Your task to perform on an android device: turn off smart reply in the gmail app Image 0: 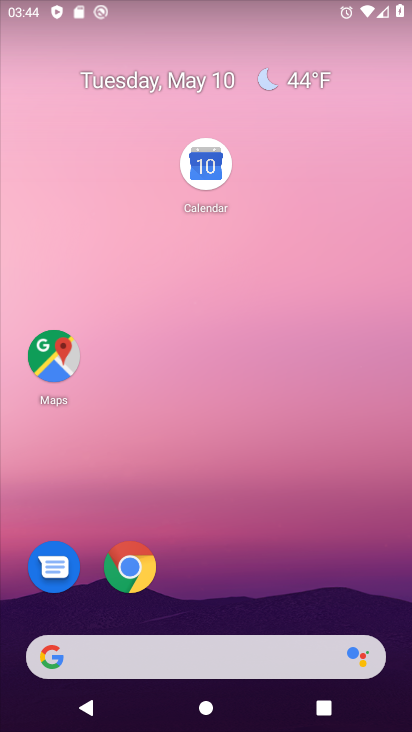
Step 0: drag from (222, 574) to (272, 106)
Your task to perform on an android device: turn off smart reply in the gmail app Image 1: 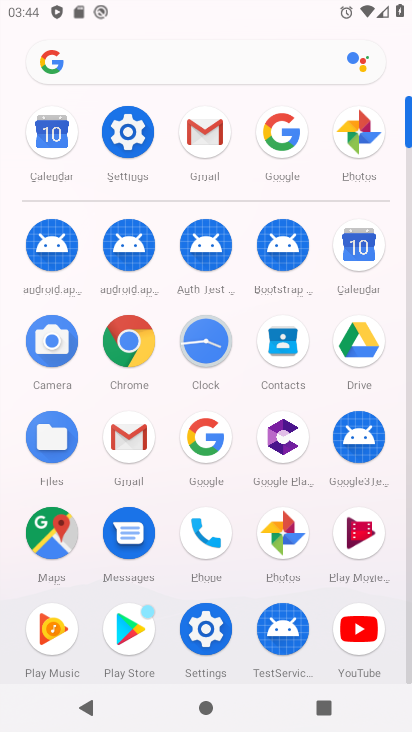
Step 1: click (200, 127)
Your task to perform on an android device: turn off smart reply in the gmail app Image 2: 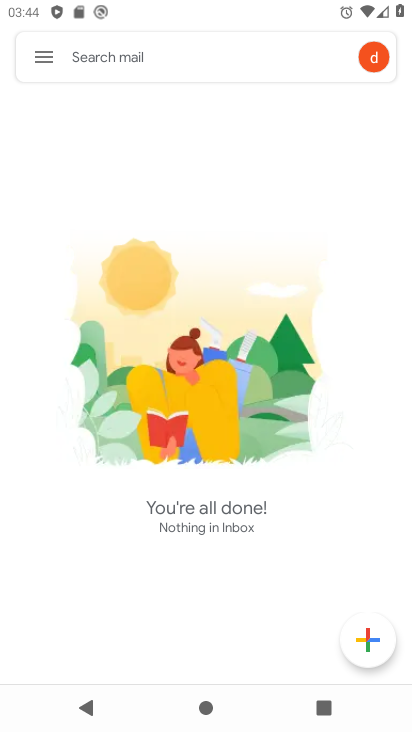
Step 2: click (45, 54)
Your task to perform on an android device: turn off smart reply in the gmail app Image 3: 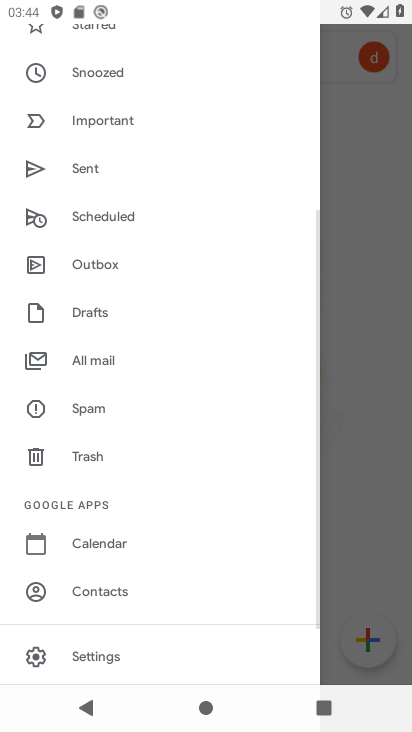
Step 3: click (106, 651)
Your task to perform on an android device: turn off smart reply in the gmail app Image 4: 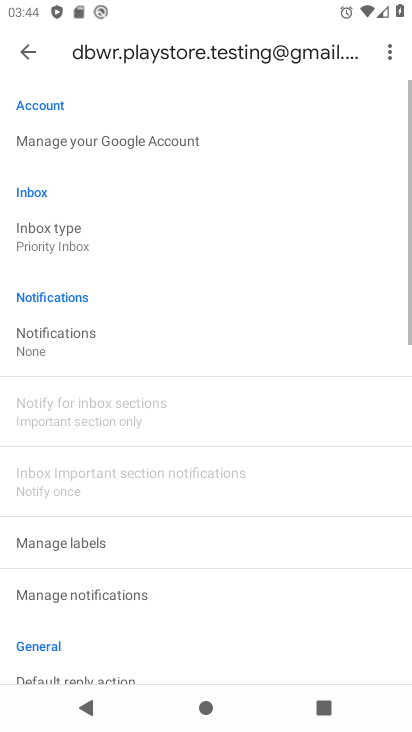
Step 4: drag from (176, 592) to (221, 67)
Your task to perform on an android device: turn off smart reply in the gmail app Image 5: 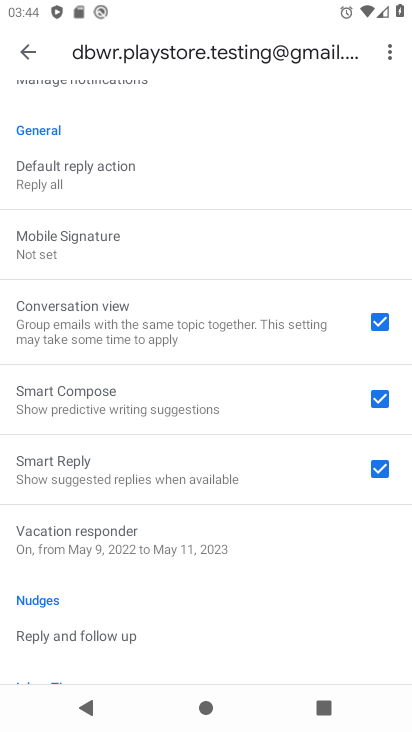
Step 5: click (376, 469)
Your task to perform on an android device: turn off smart reply in the gmail app Image 6: 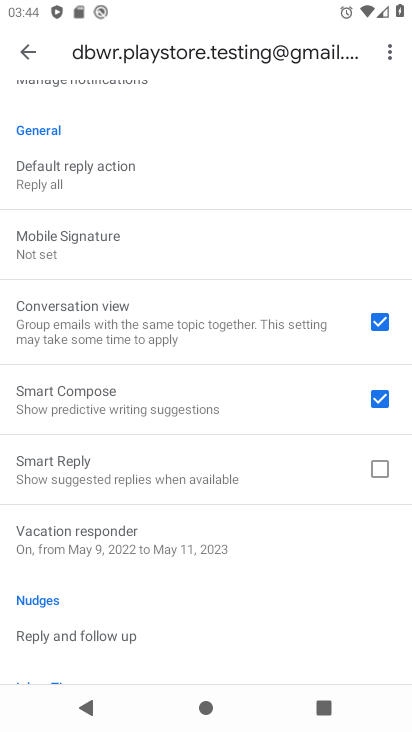
Step 6: task complete